Your task to perform on an android device: What's the news in Suriname? Image 0: 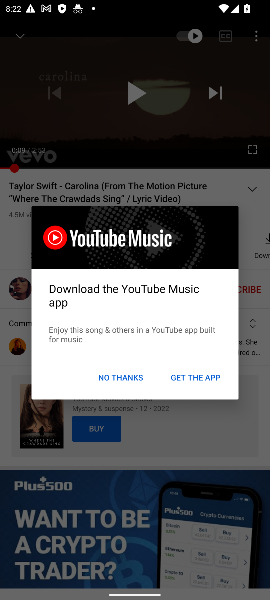
Step 0: press home button
Your task to perform on an android device: What's the news in Suriname? Image 1: 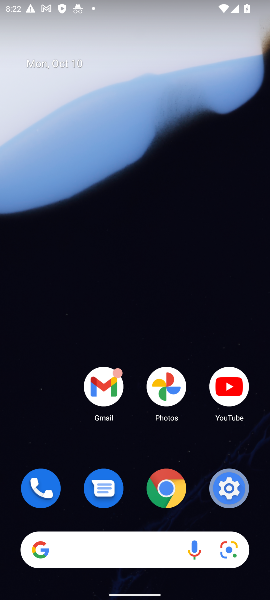
Step 1: drag from (31, 407) to (8, 236)
Your task to perform on an android device: What's the news in Suriname? Image 2: 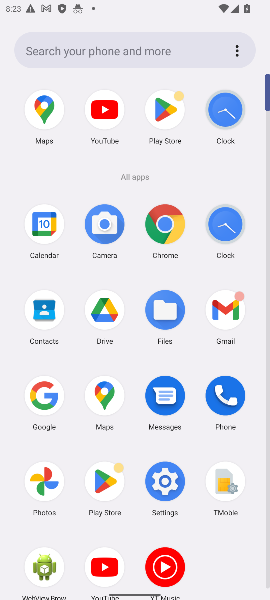
Step 2: click (172, 215)
Your task to perform on an android device: What's the news in Suriname? Image 3: 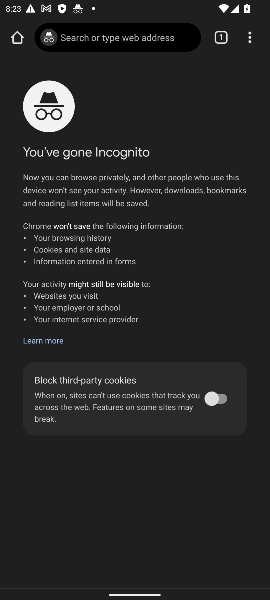
Step 3: click (106, 37)
Your task to perform on an android device: What's the news in Suriname? Image 4: 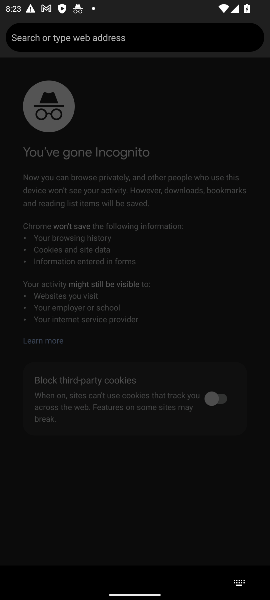
Step 4: type "What's the news in Suriname?"
Your task to perform on an android device: What's the news in Suriname? Image 5: 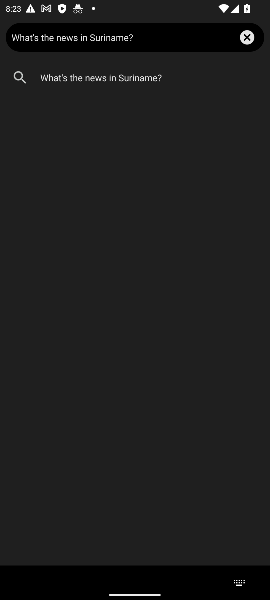
Step 5: press enter
Your task to perform on an android device: What's the news in Suriname? Image 6: 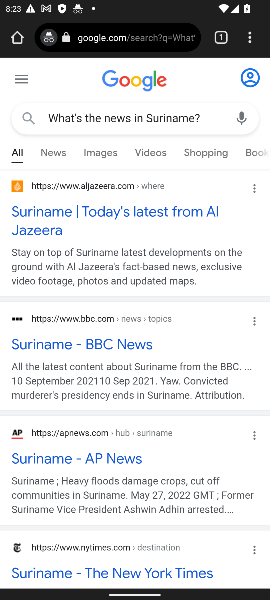
Step 6: click (174, 208)
Your task to perform on an android device: What's the news in Suriname? Image 7: 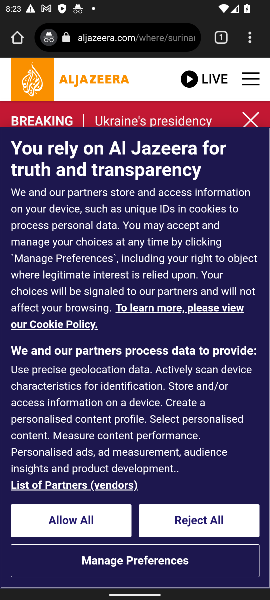
Step 7: drag from (154, 406) to (158, 173)
Your task to perform on an android device: What's the news in Suriname? Image 8: 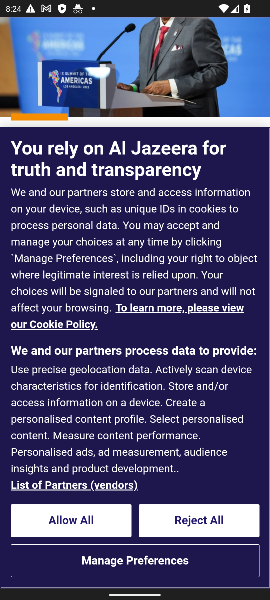
Step 8: click (88, 508)
Your task to perform on an android device: What's the news in Suriname? Image 9: 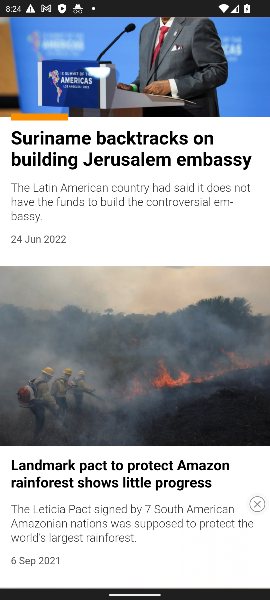
Step 9: task complete